Your task to perform on an android device: open chrome and create a bookmark for the current page Image 0: 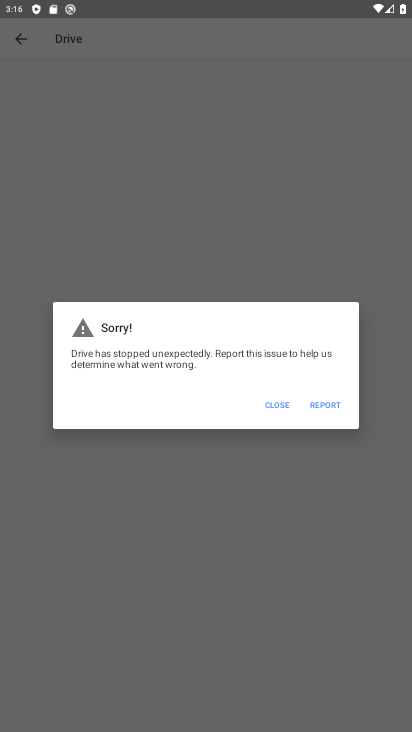
Step 0: press back button
Your task to perform on an android device: open chrome and create a bookmark for the current page Image 1: 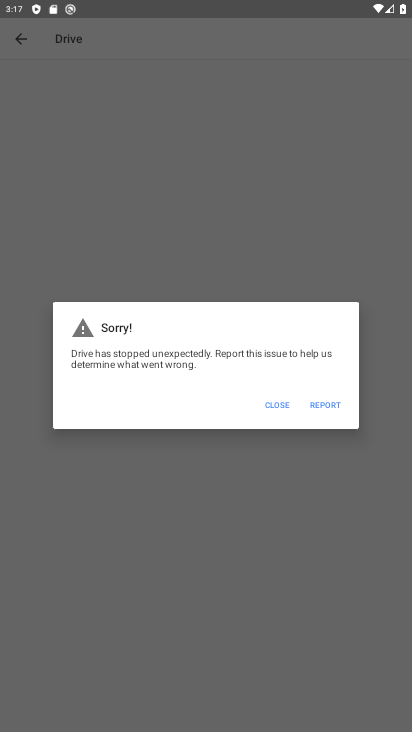
Step 1: click (273, 403)
Your task to perform on an android device: open chrome and create a bookmark for the current page Image 2: 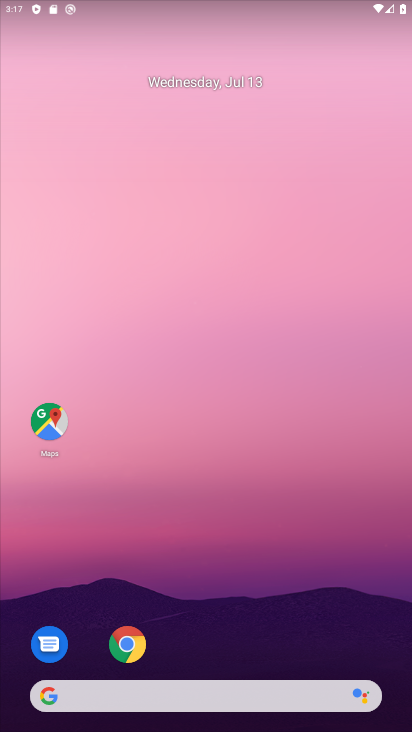
Step 2: click (126, 634)
Your task to perform on an android device: open chrome and create a bookmark for the current page Image 3: 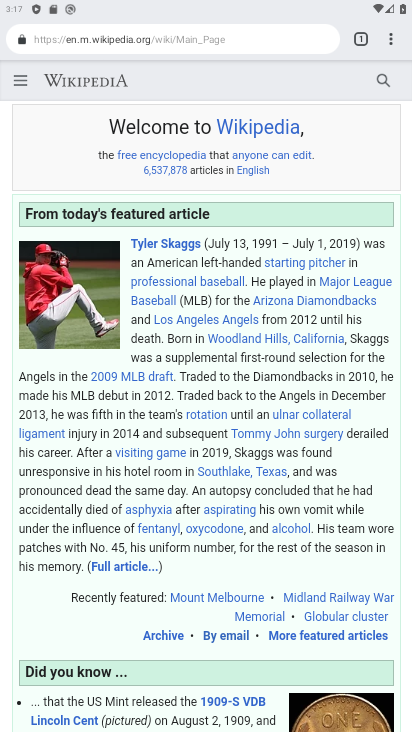
Step 3: drag from (390, 37) to (264, 150)
Your task to perform on an android device: open chrome and create a bookmark for the current page Image 4: 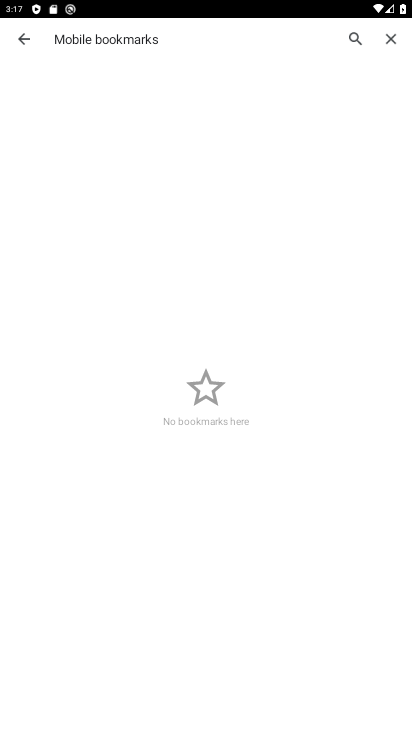
Step 4: click (384, 43)
Your task to perform on an android device: open chrome and create a bookmark for the current page Image 5: 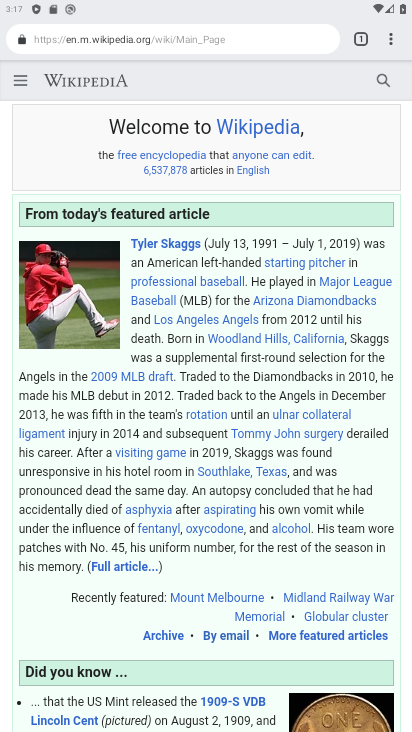
Step 5: task complete